Your task to perform on an android device: uninstall "Google Maps" Image 0: 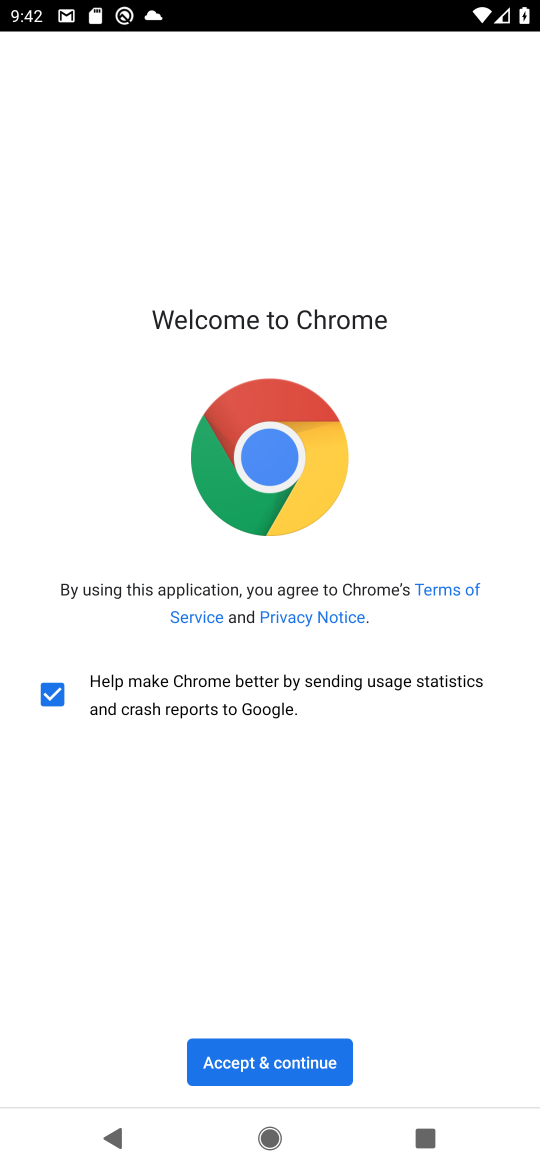
Step 0: press home button
Your task to perform on an android device: uninstall "Google Maps" Image 1: 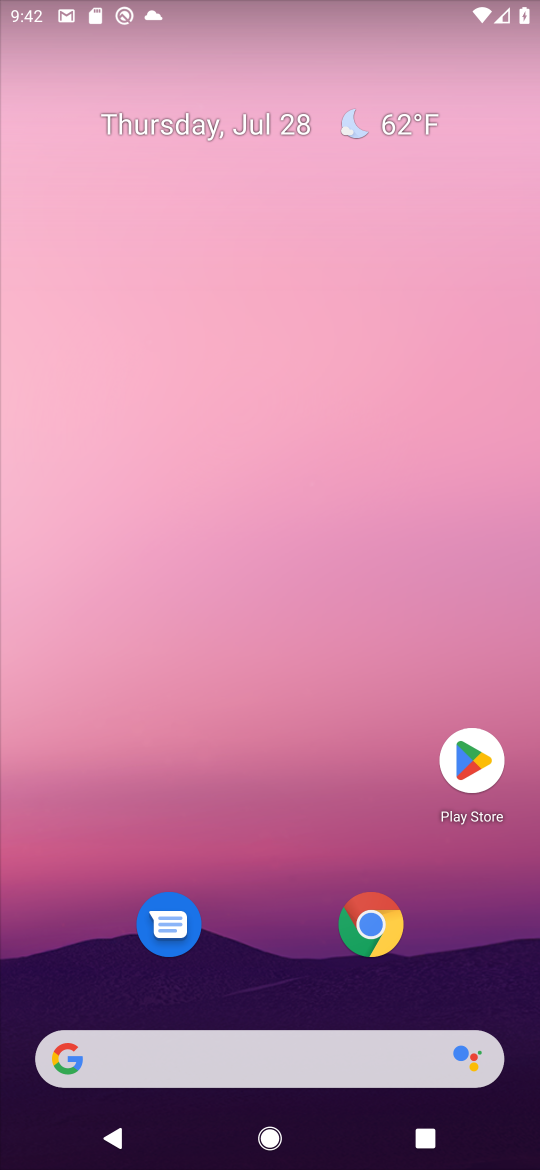
Step 1: click (470, 770)
Your task to perform on an android device: uninstall "Google Maps" Image 2: 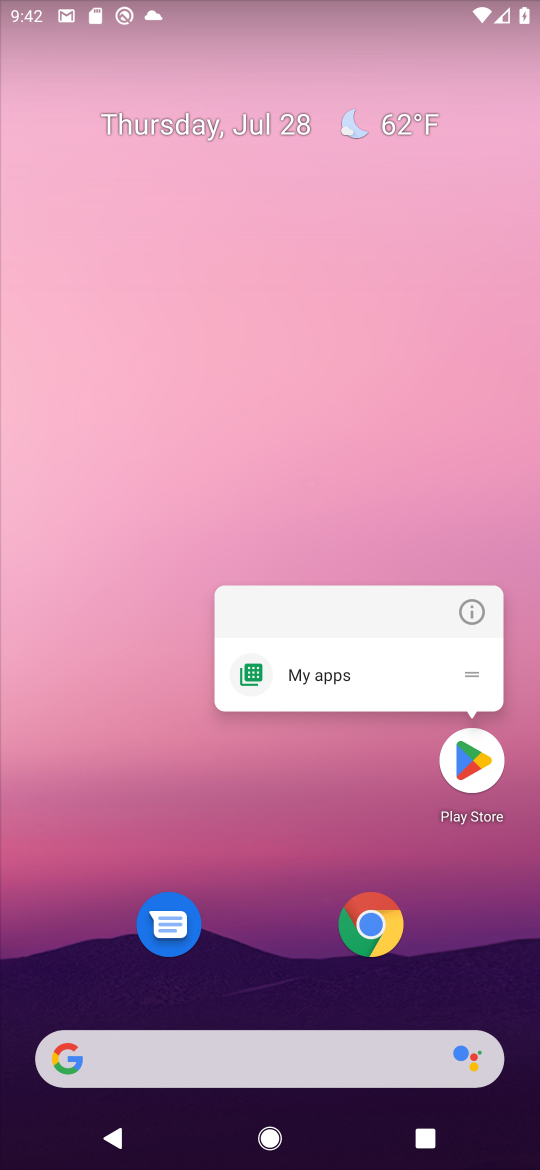
Step 2: click (470, 771)
Your task to perform on an android device: uninstall "Google Maps" Image 3: 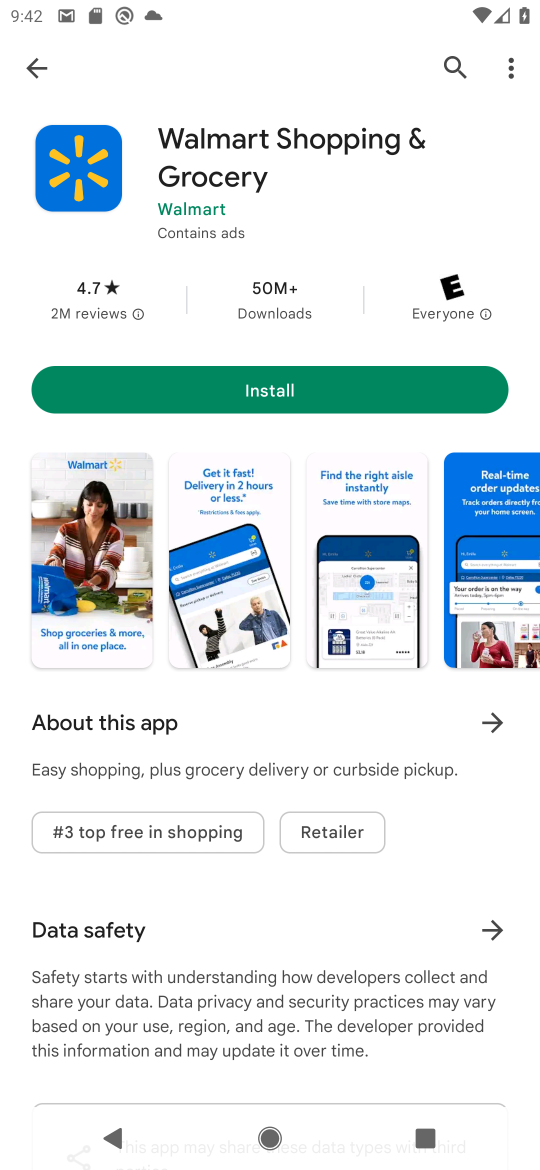
Step 3: click (448, 62)
Your task to perform on an android device: uninstall "Google Maps" Image 4: 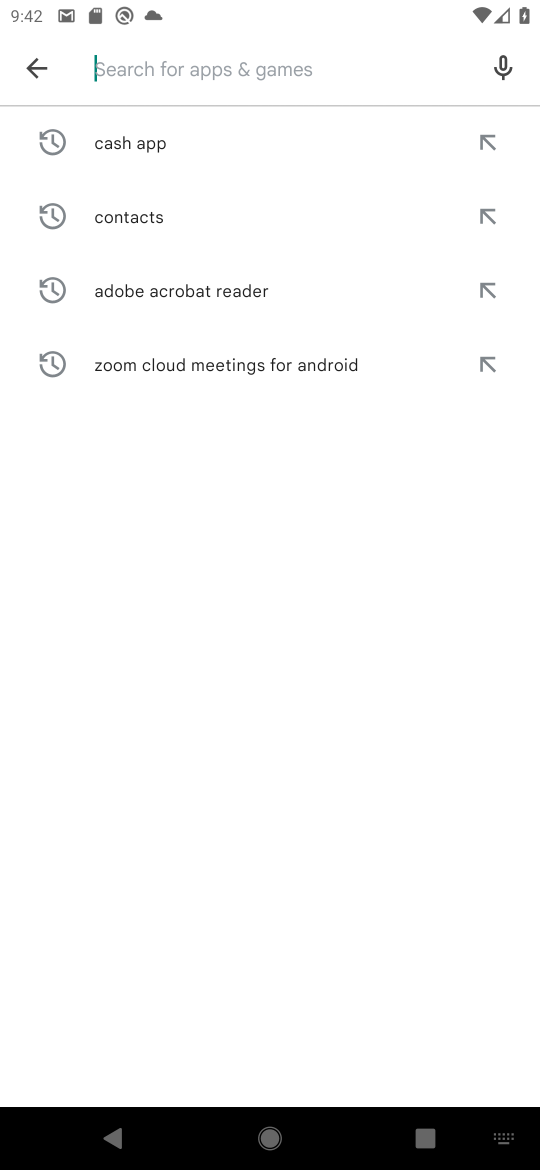
Step 4: type "Google Maps"
Your task to perform on an android device: uninstall "Google Maps" Image 5: 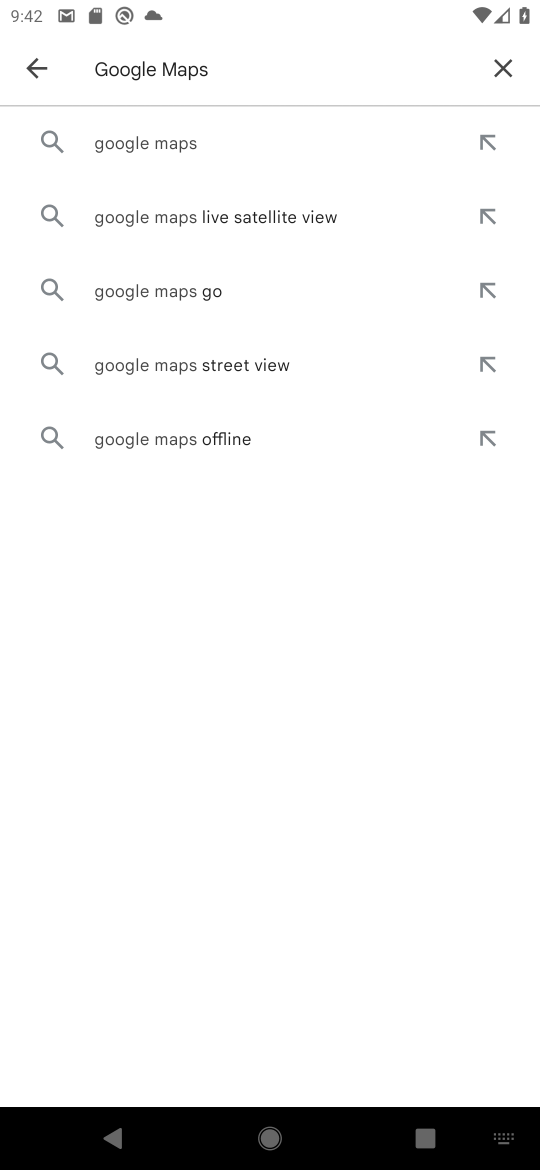
Step 5: click (179, 142)
Your task to perform on an android device: uninstall "Google Maps" Image 6: 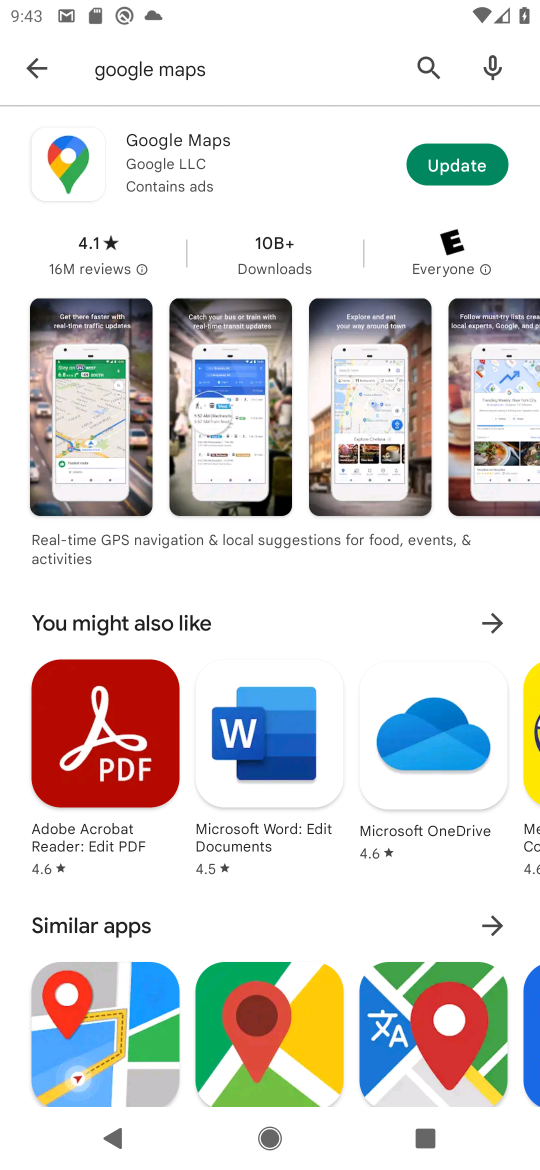
Step 6: task complete